Your task to perform on an android device: empty trash in google photos Image 0: 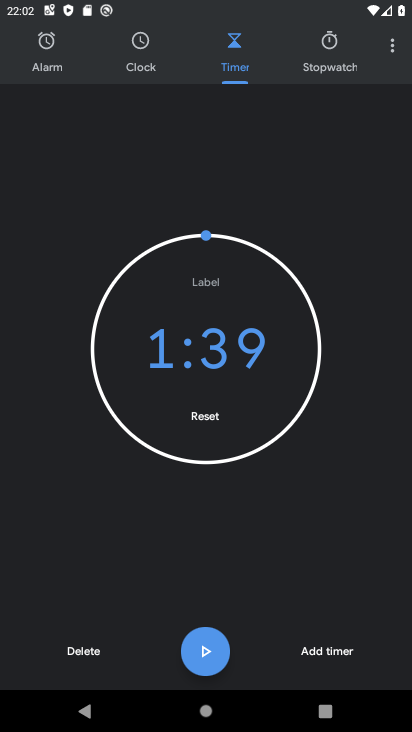
Step 0: press home button
Your task to perform on an android device: empty trash in google photos Image 1: 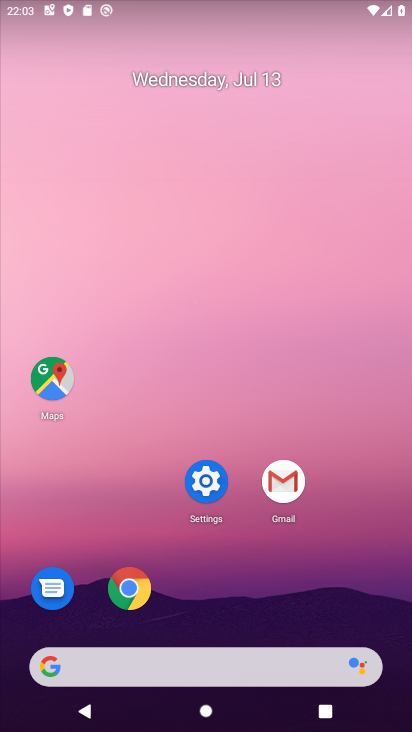
Step 1: drag from (383, 621) to (315, 62)
Your task to perform on an android device: empty trash in google photos Image 2: 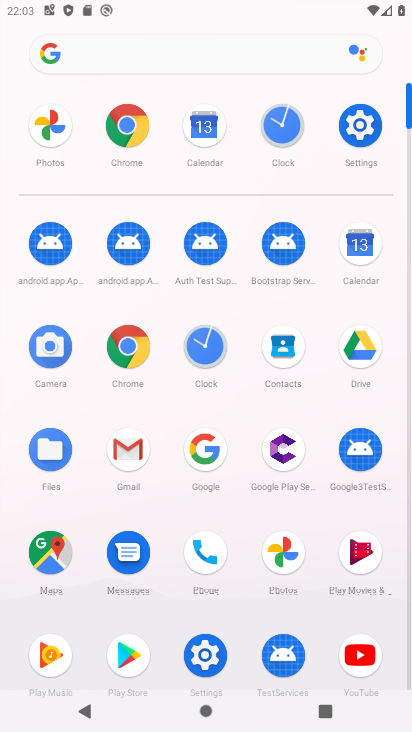
Step 2: click (275, 559)
Your task to perform on an android device: empty trash in google photos Image 3: 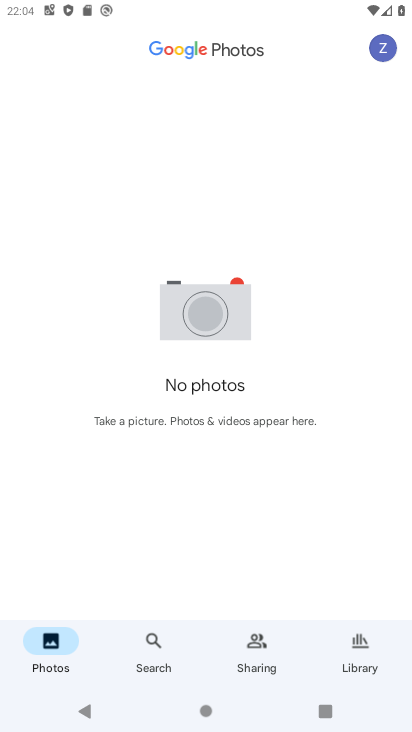
Step 3: task complete